Your task to perform on an android device: turn on the 12-hour format for clock Image 0: 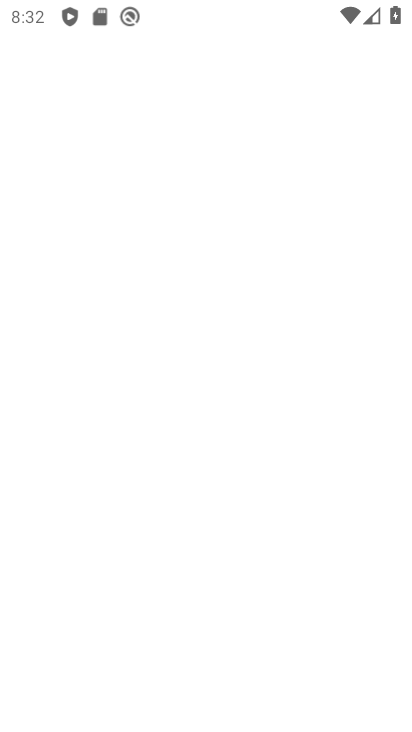
Step 0: drag from (243, 633) to (197, 83)
Your task to perform on an android device: turn on the 12-hour format for clock Image 1: 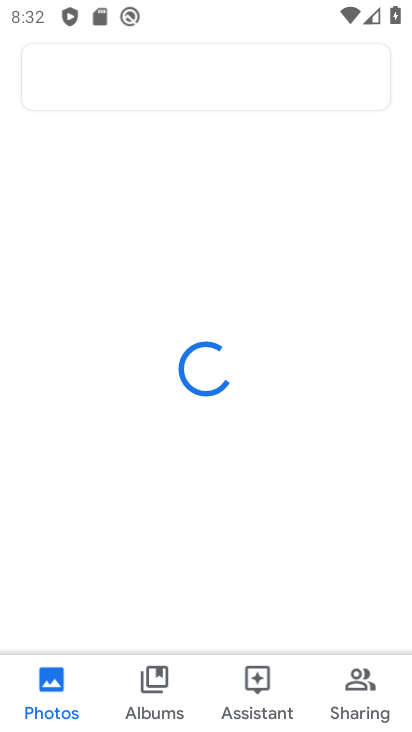
Step 1: press back button
Your task to perform on an android device: turn on the 12-hour format for clock Image 2: 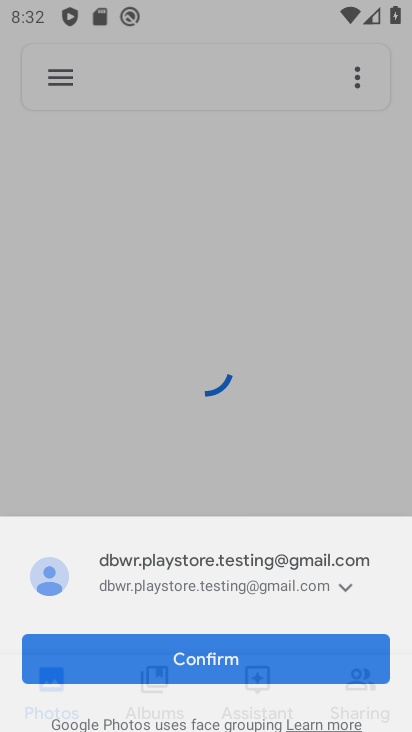
Step 2: press home button
Your task to perform on an android device: turn on the 12-hour format for clock Image 3: 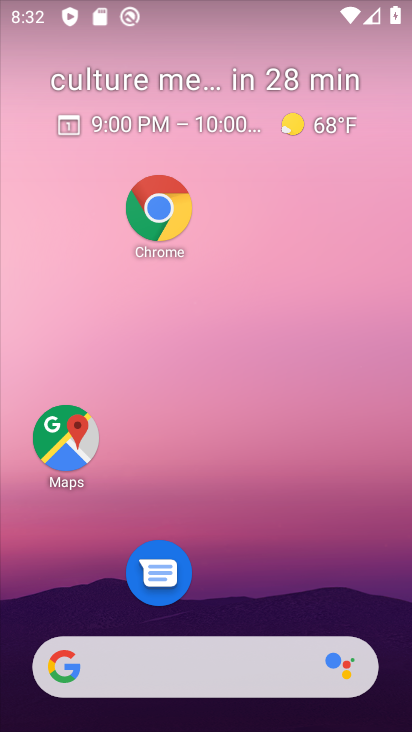
Step 3: drag from (292, 660) to (203, 89)
Your task to perform on an android device: turn on the 12-hour format for clock Image 4: 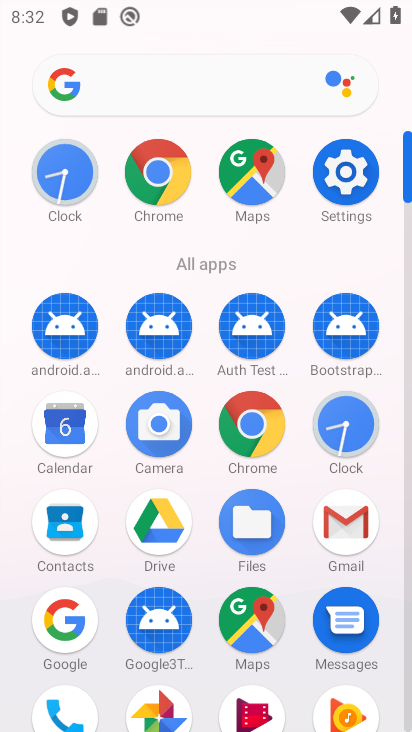
Step 4: click (346, 430)
Your task to perform on an android device: turn on the 12-hour format for clock Image 5: 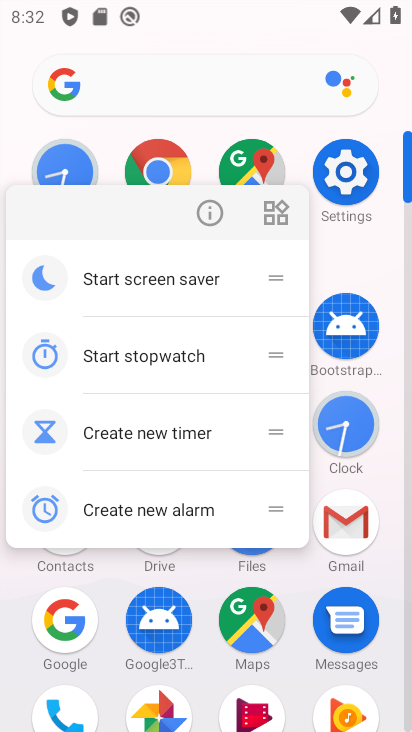
Step 5: click (346, 431)
Your task to perform on an android device: turn on the 12-hour format for clock Image 6: 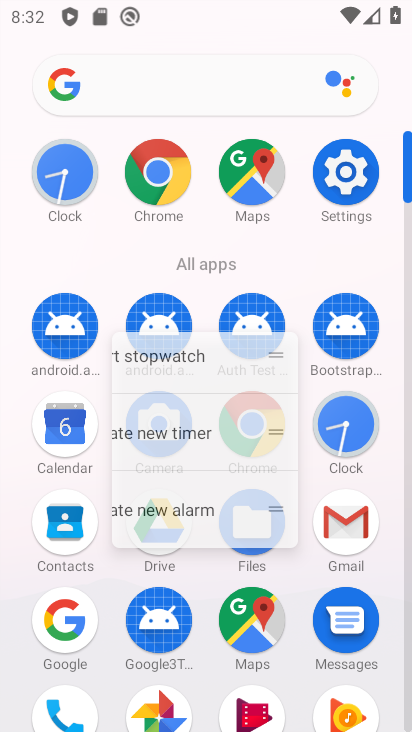
Step 6: click (346, 431)
Your task to perform on an android device: turn on the 12-hour format for clock Image 7: 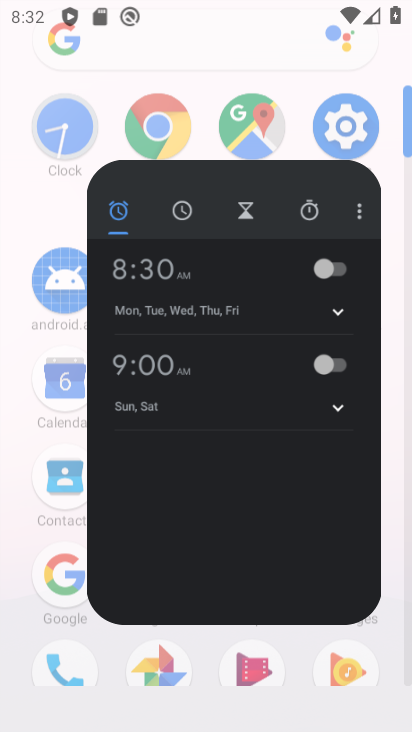
Step 7: click (346, 431)
Your task to perform on an android device: turn on the 12-hour format for clock Image 8: 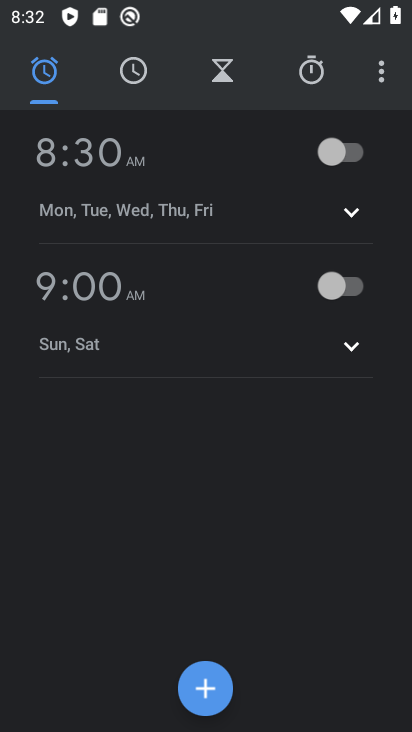
Step 8: click (374, 79)
Your task to perform on an android device: turn on the 12-hour format for clock Image 9: 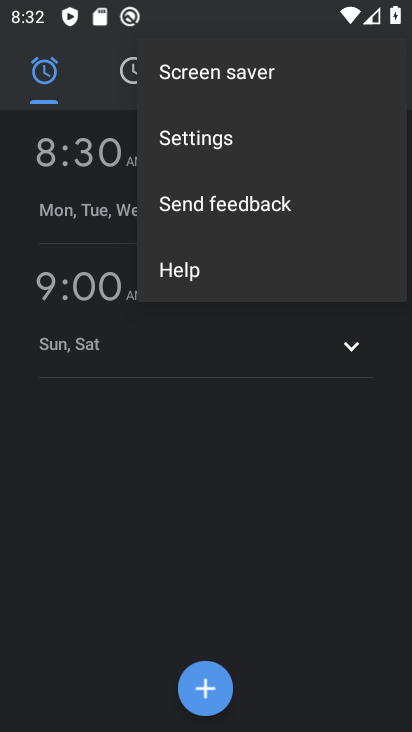
Step 9: click (182, 142)
Your task to perform on an android device: turn on the 12-hour format for clock Image 10: 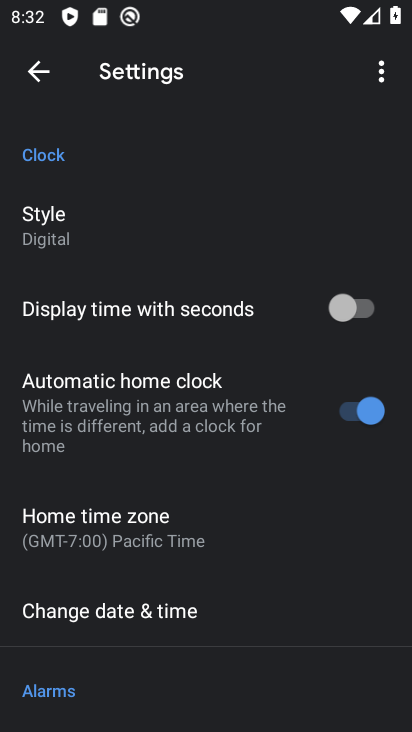
Step 10: click (178, 617)
Your task to perform on an android device: turn on the 12-hour format for clock Image 11: 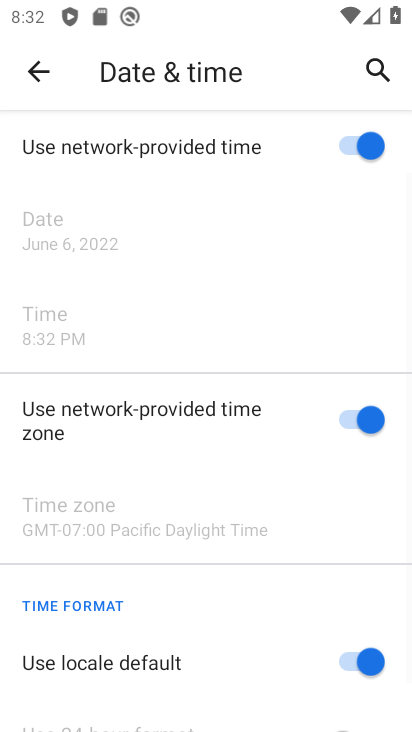
Step 11: task complete